Your task to perform on an android device: Open the phone app and click the voicemail tab. Image 0: 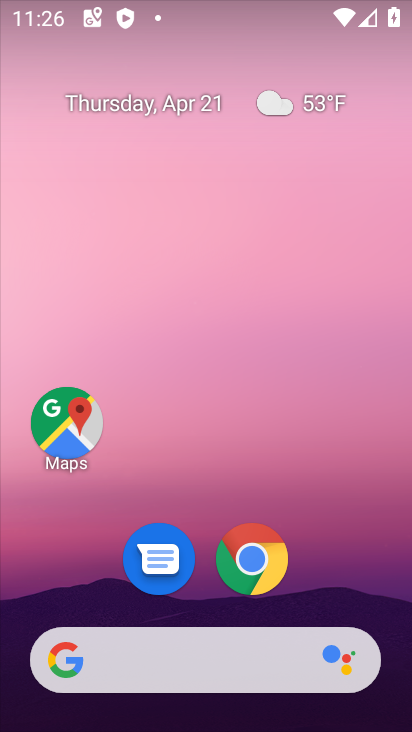
Step 0: drag from (381, 606) to (399, 25)
Your task to perform on an android device: Open the phone app and click the voicemail tab. Image 1: 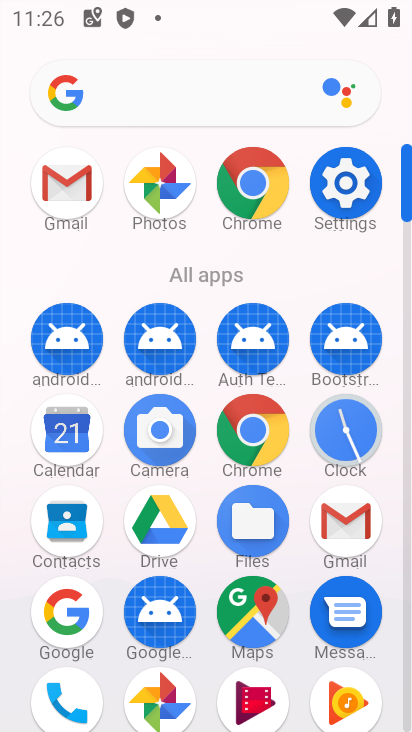
Step 1: click (59, 697)
Your task to perform on an android device: Open the phone app and click the voicemail tab. Image 2: 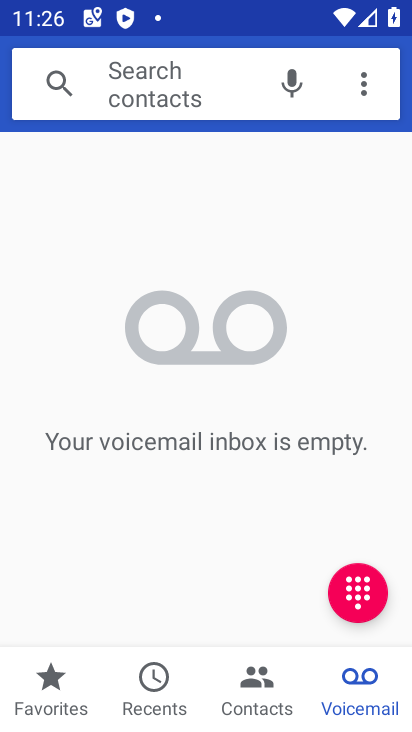
Step 2: click (354, 689)
Your task to perform on an android device: Open the phone app and click the voicemail tab. Image 3: 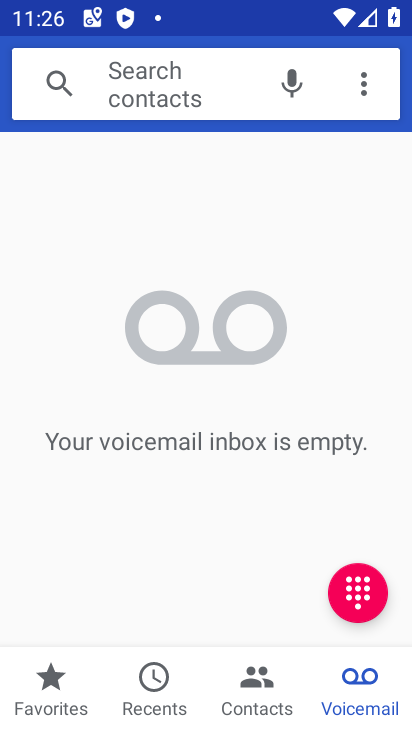
Step 3: task complete